Your task to perform on an android device: Show me the alarms in the clock app Image 0: 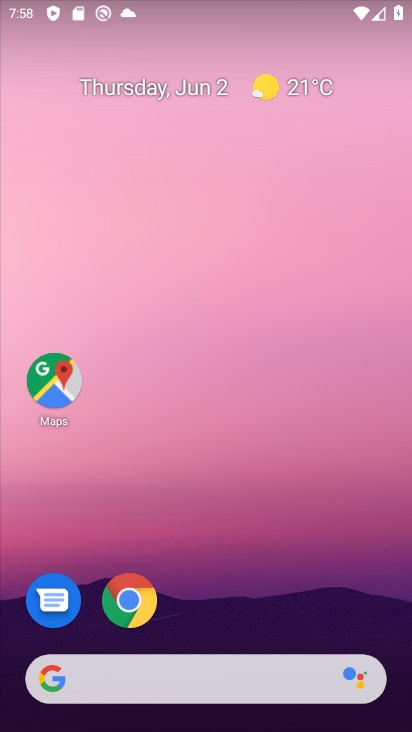
Step 0: drag from (370, 619) to (370, 206)
Your task to perform on an android device: Show me the alarms in the clock app Image 1: 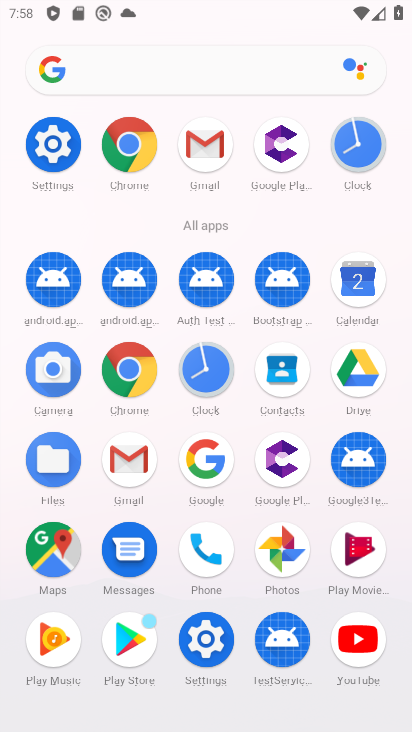
Step 1: click (209, 378)
Your task to perform on an android device: Show me the alarms in the clock app Image 2: 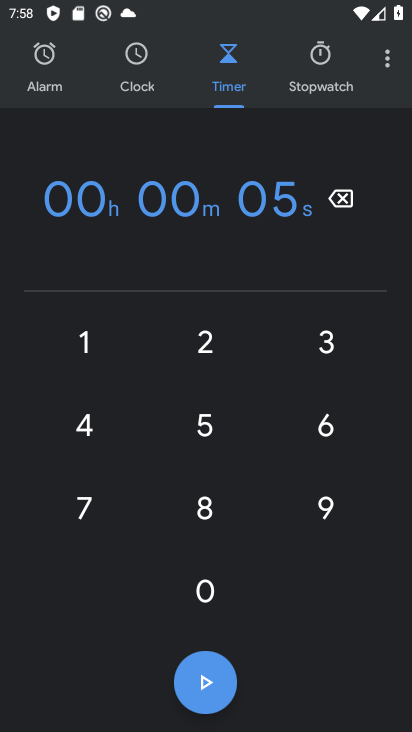
Step 2: click (50, 74)
Your task to perform on an android device: Show me the alarms in the clock app Image 3: 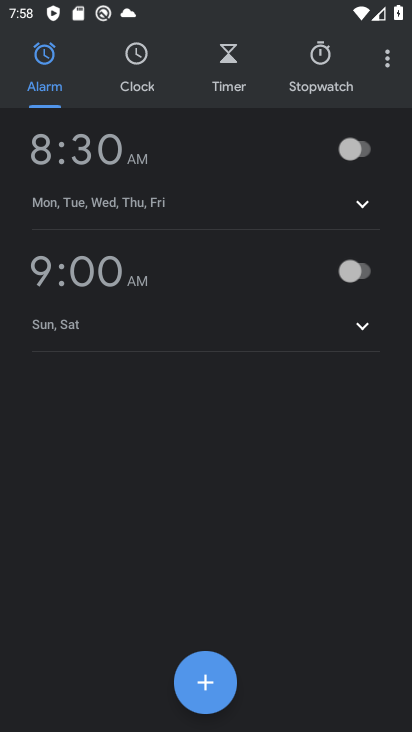
Step 3: task complete